Your task to perform on an android device: turn off wifi Image 0: 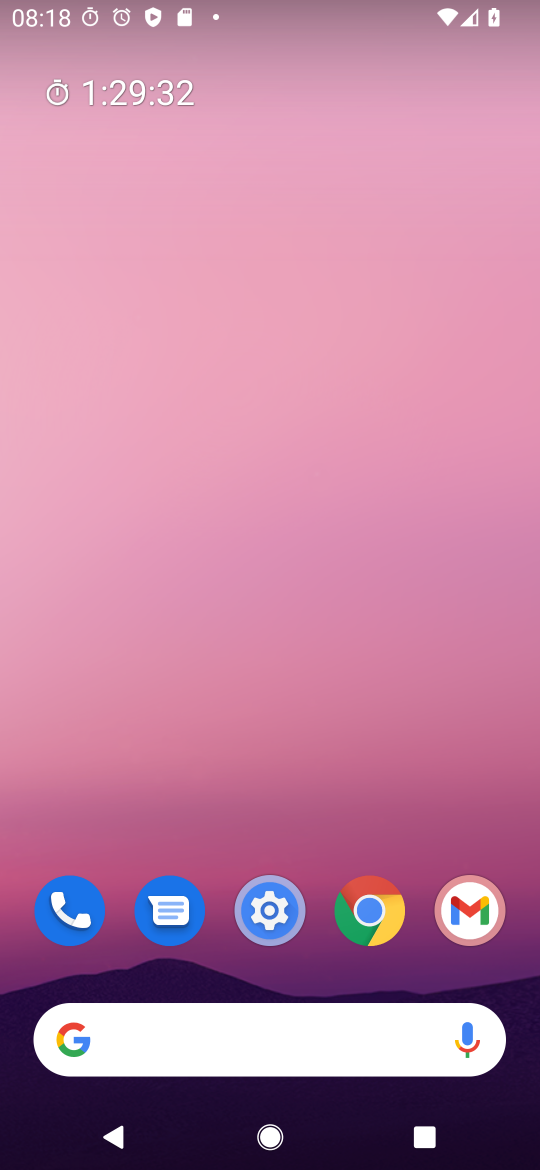
Step 0: drag from (277, 1039) to (223, 3)
Your task to perform on an android device: turn off wifi Image 1: 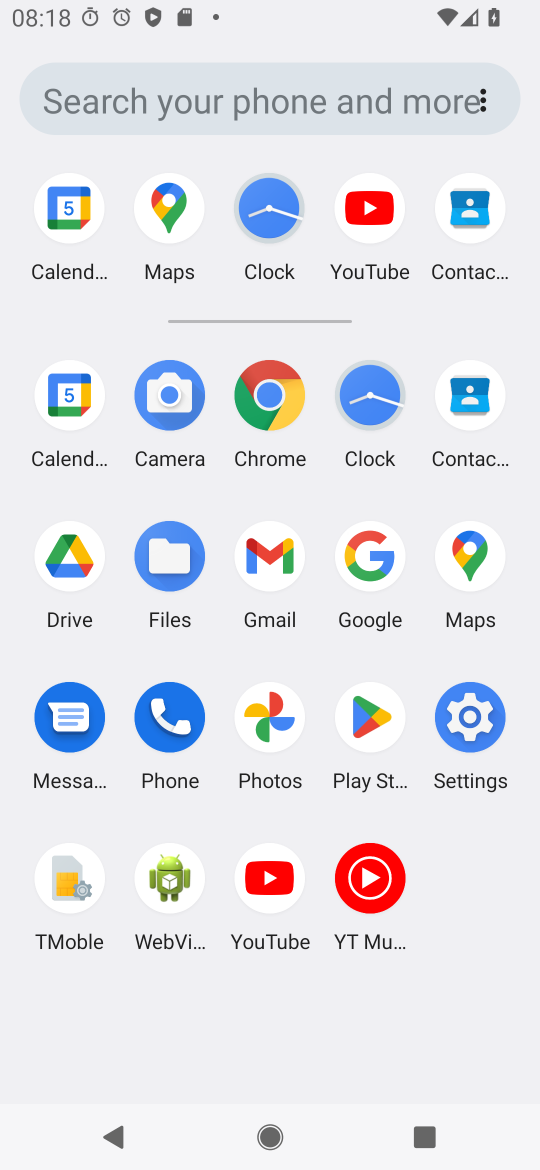
Step 1: click (450, 735)
Your task to perform on an android device: turn off wifi Image 2: 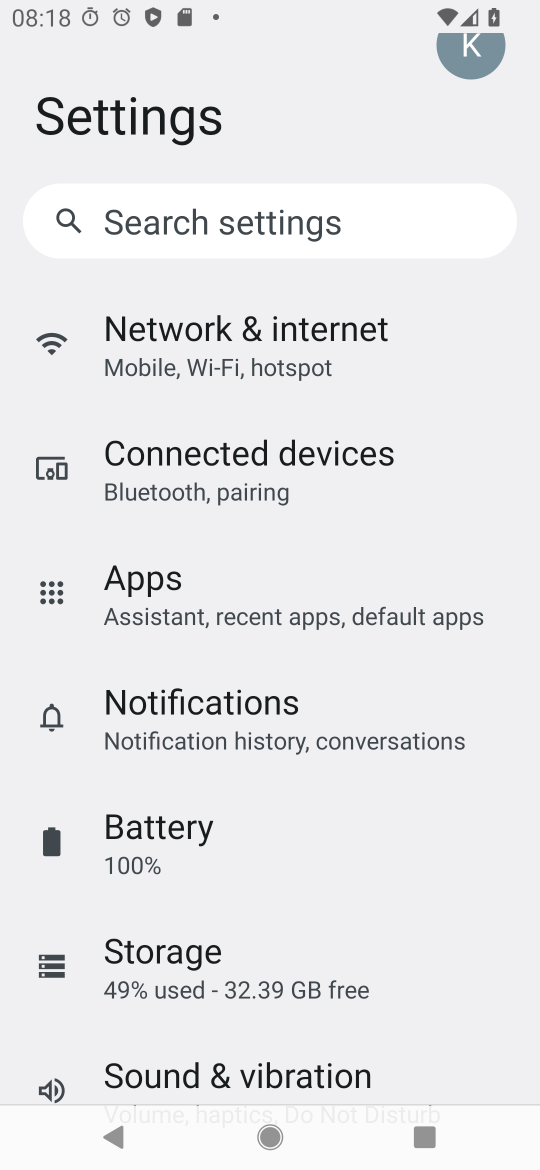
Step 2: click (326, 361)
Your task to perform on an android device: turn off wifi Image 3: 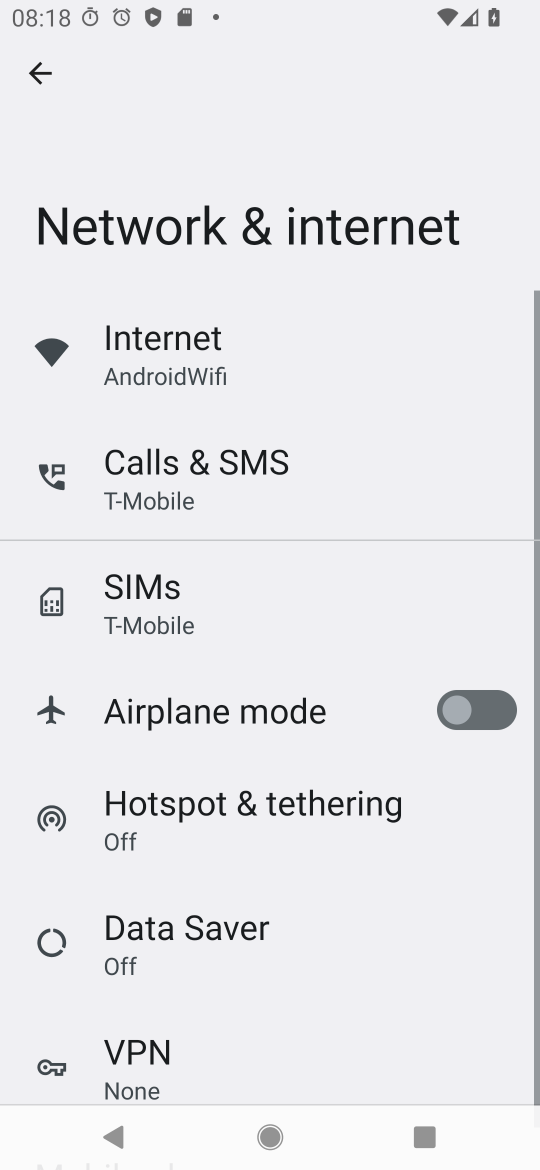
Step 3: click (213, 370)
Your task to perform on an android device: turn off wifi Image 4: 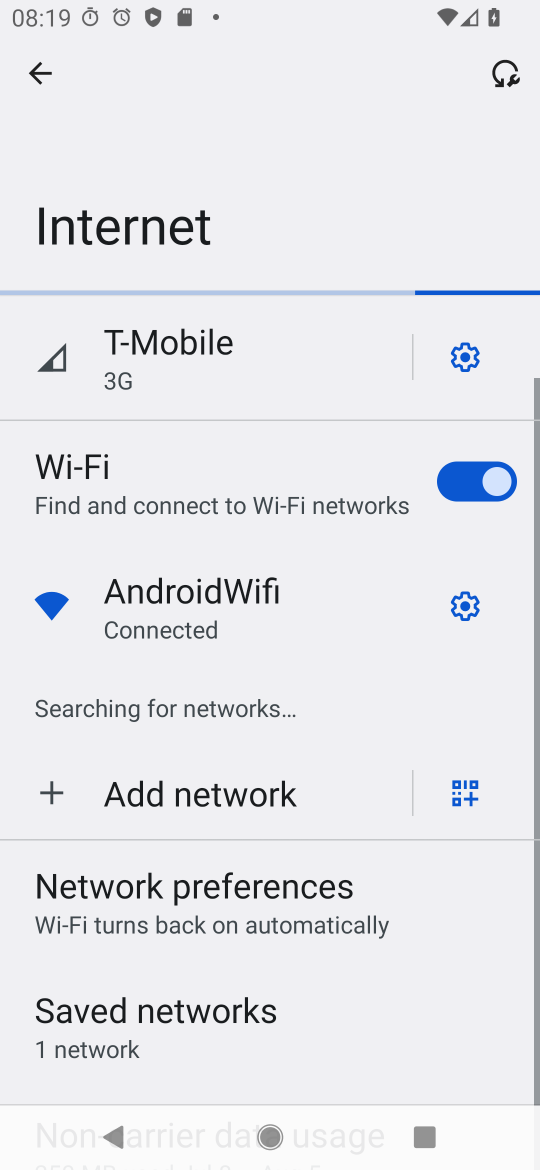
Step 4: click (441, 494)
Your task to perform on an android device: turn off wifi Image 5: 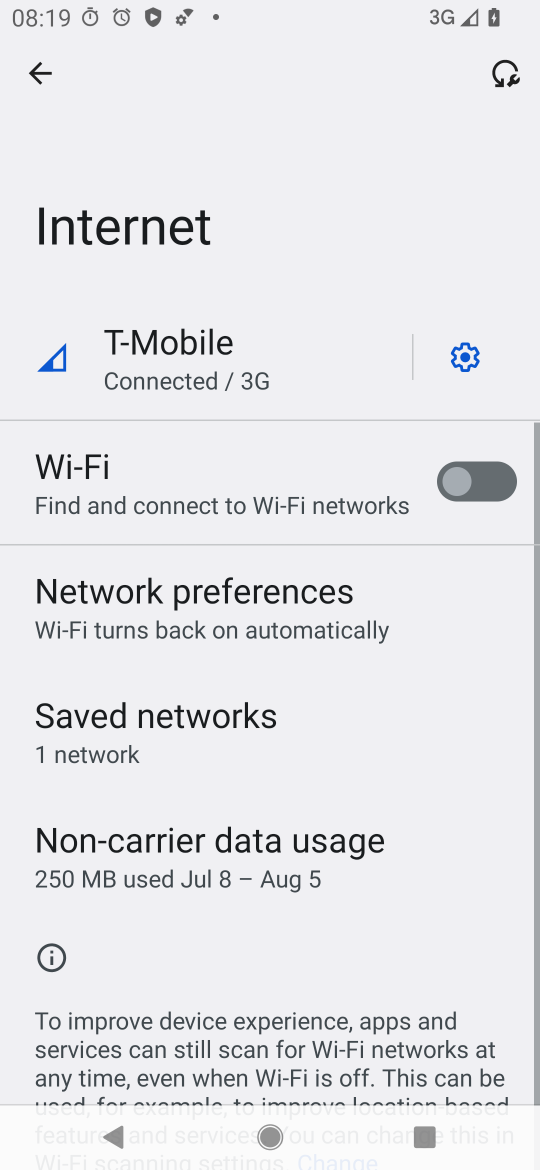
Step 5: task complete